Your task to perform on an android device: turn vacation reply on in the gmail app Image 0: 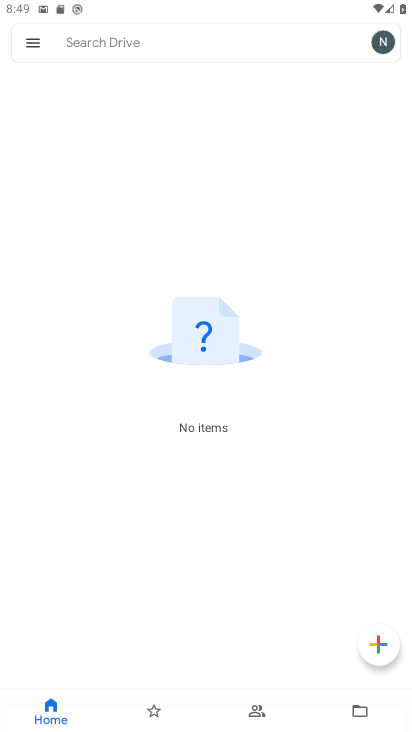
Step 0: press home button
Your task to perform on an android device: turn vacation reply on in the gmail app Image 1: 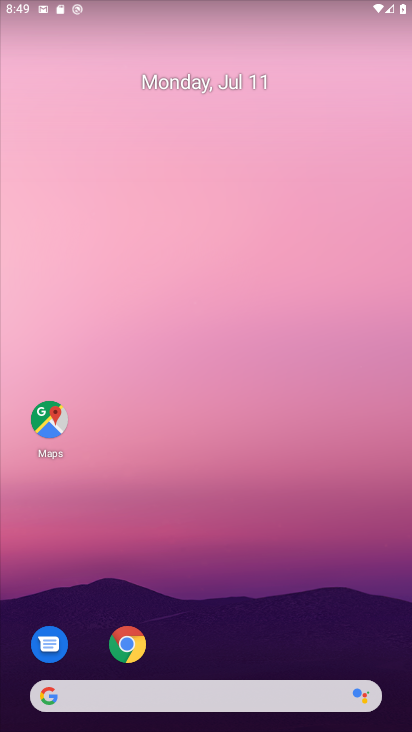
Step 1: drag from (211, 676) to (218, 389)
Your task to perform on an android device: turn vacation reply on in the gmail app Image 2: 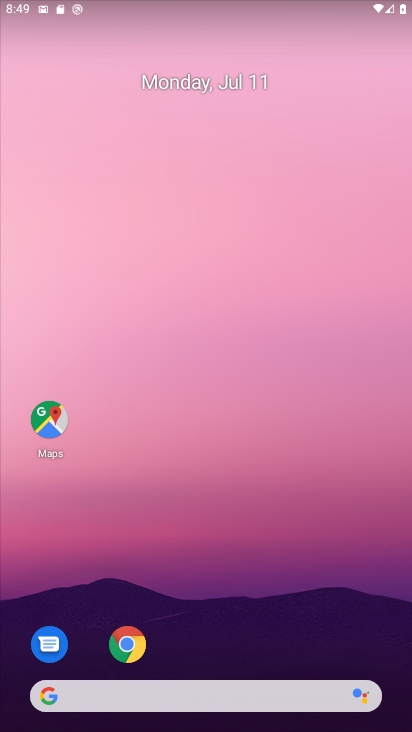
Step 2: drag from (163, 676) to (155, 217)
Your task to perform on an android device: turn vacation reply on in the gmail app Image 3: 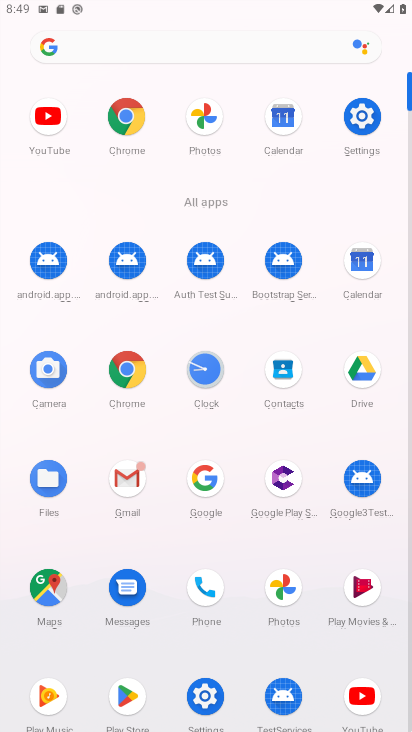
Step 3: click (118, 486)
Your task to perform on an android device: turn vacation reply on in the gmail app Image 4: 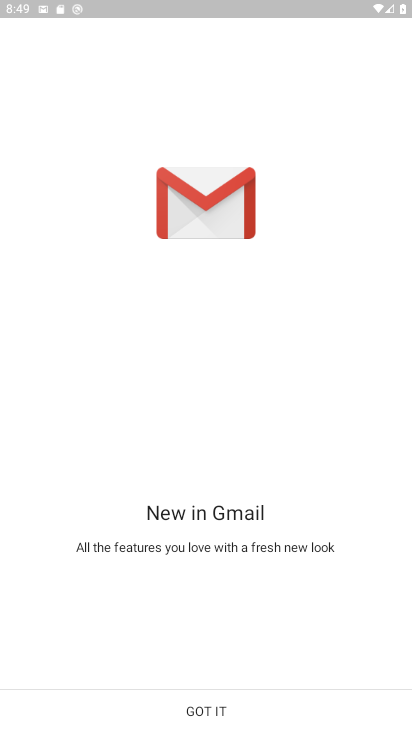
Step 4: click (203, 715)
Your task to perform on an android device: turn vacation reply on in the gmail app Image 5: 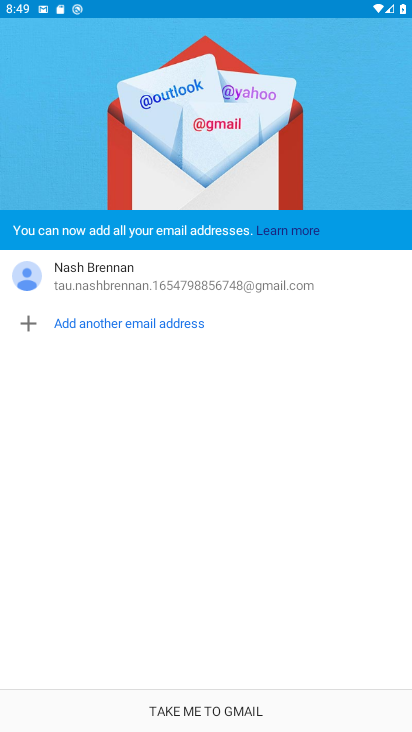
Step 5: click (203, 715)
Your task to perform on an android device: turn vacation reply on in the gmail app Image 6: 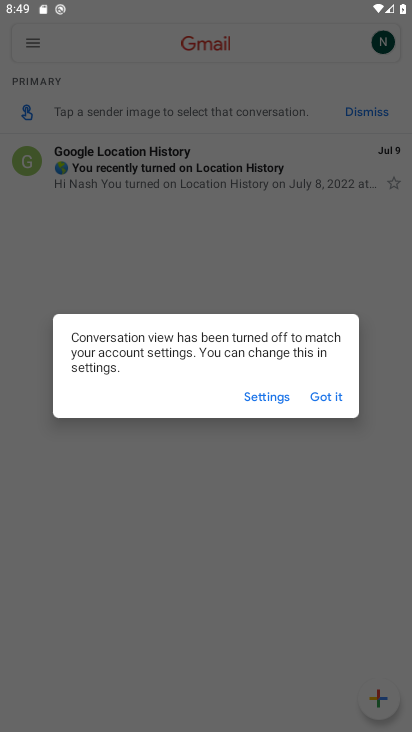
Step 6: click (324, 405)
Your task to perform on an android device: turn vacation reply on in the gmail app Image 7: 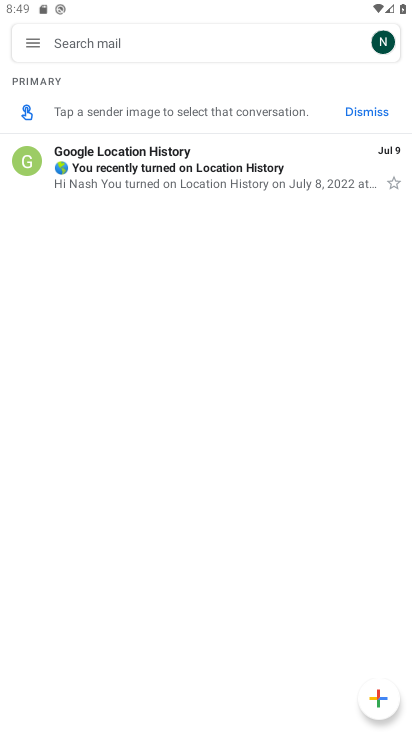
Step 7: click (43, 44)
Your task to perform on an android device: turn vacation reply on in the gmail app Image 8: 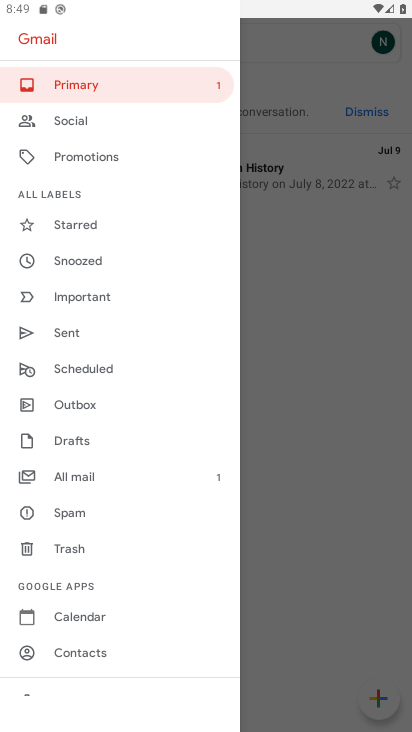
Step 8: drag from (36, 610) to (30, 313)
Your task to perform on an android device: turn vacation reply on in the gmail app Image 9: 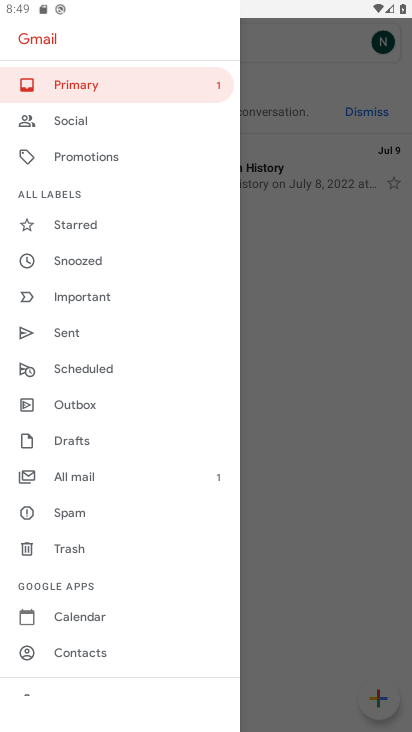
Step 9: drag from (104, 653) to (99, 398)
Your task to perform on an android device: turn vacation reply on in the gmail app Image 10: 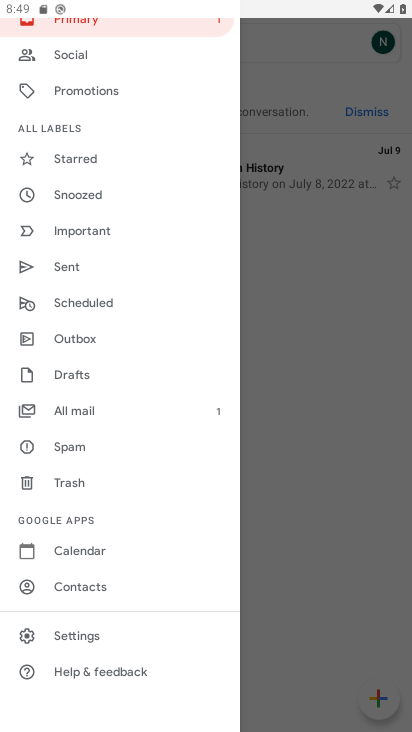
Step 10: click (62, 637)
Your task to perform on an android device: turn vacation reply on in the gmail app Image 11: 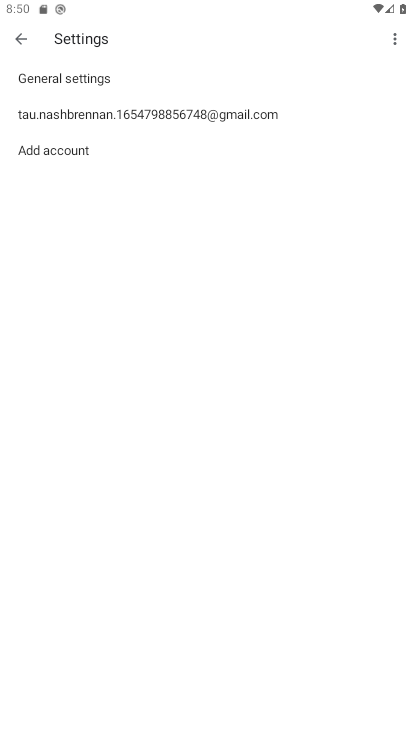
Step 11: click (117, 115)
Your task to perform on an android device: turn vacation reply on in the gmail app Image 12: 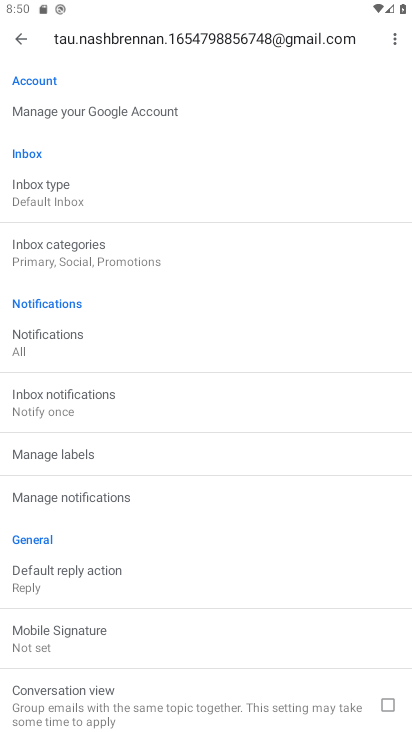
Step 12: drag from (119, 656) to (109, 292)
Your task to perform on an android device: turn vacation reply on in the gmail app Image 13: 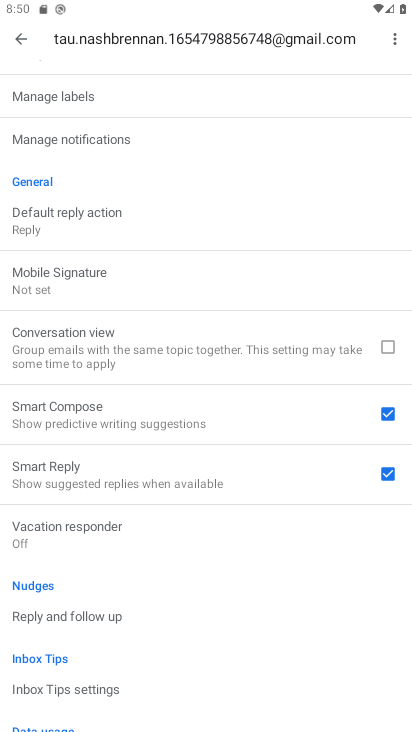
Step 13: click (96, 386)
Your task to perform on an android device: turn vacation reply on in the gmail app Image 14: 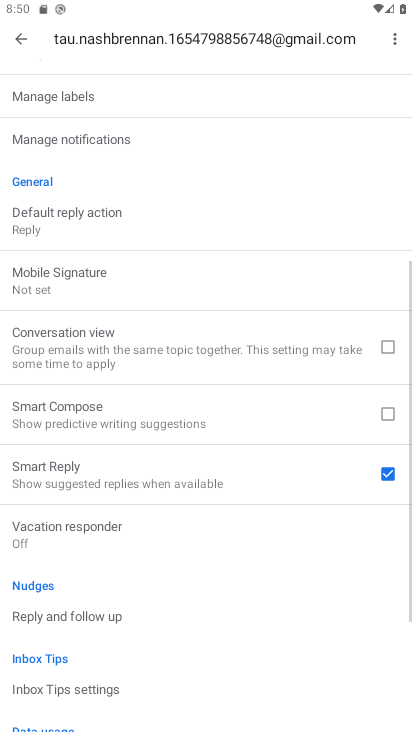
Step 14: click (98, 531)
Your task to perform on an android device: turn vacation reply on in the gmail app Image 15: 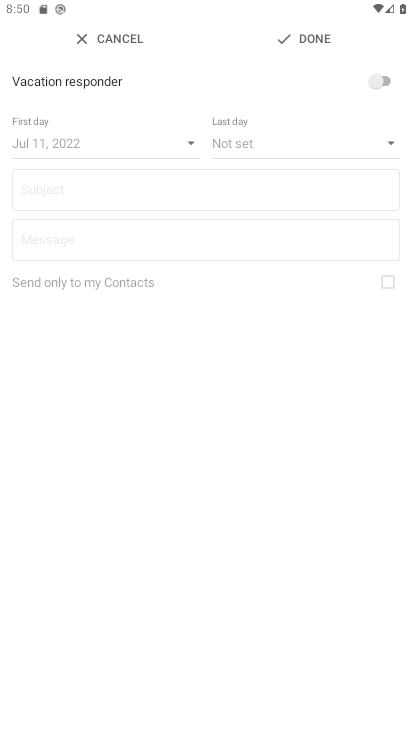
Step 15: click (388, 80)
Your task to perform on an android device: turn vacation reply on in the gmail app Image 16: 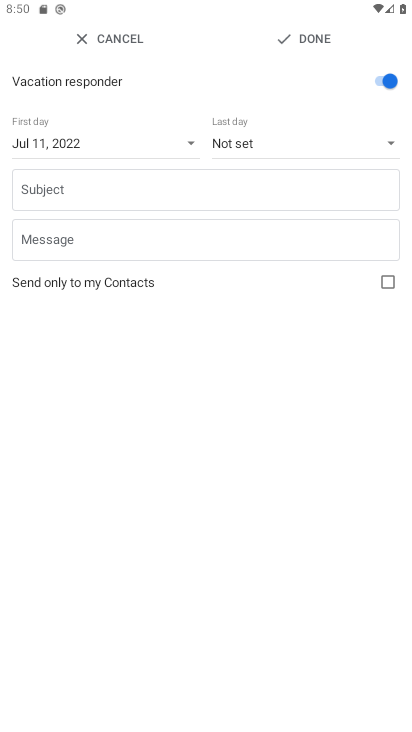
Step 16: click (284, 35)
Your task to perform on an android device: turn vacation reply on in the gmail app Image 17: 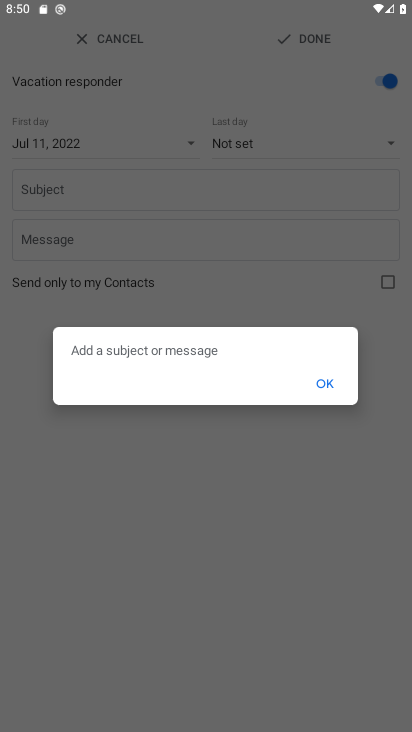
Step 17: click (319, 379)
Your task to perform on an android device: turn vacation reply on in the gmail app Image 18: 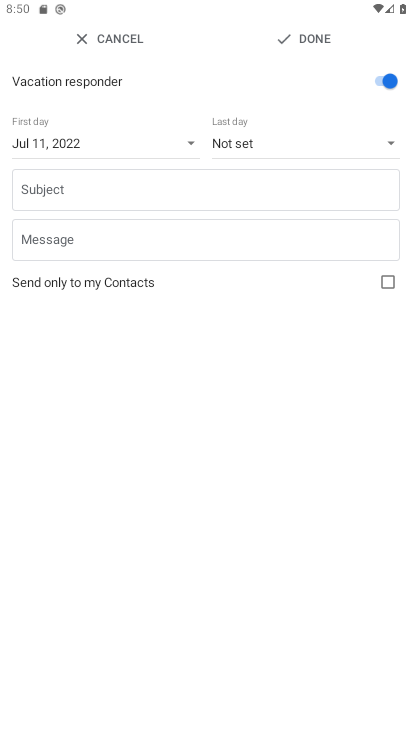
Step 18: task complete